Your task to perform on an android device: Is it going to rain today? Image 0: 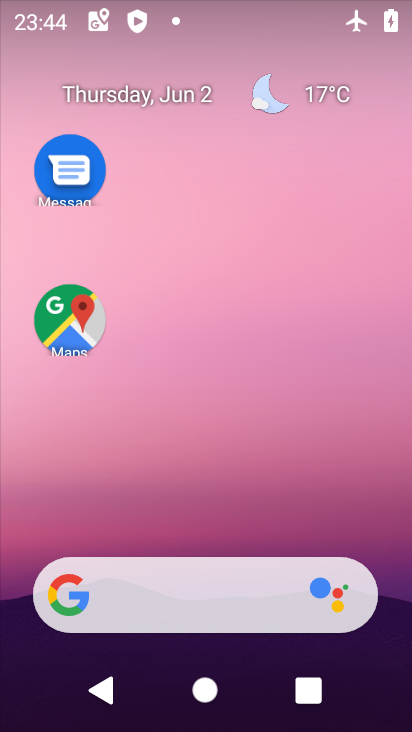
Step 0: press home button
Your task to perform on an android device: Is it going to rain today? Image 1: 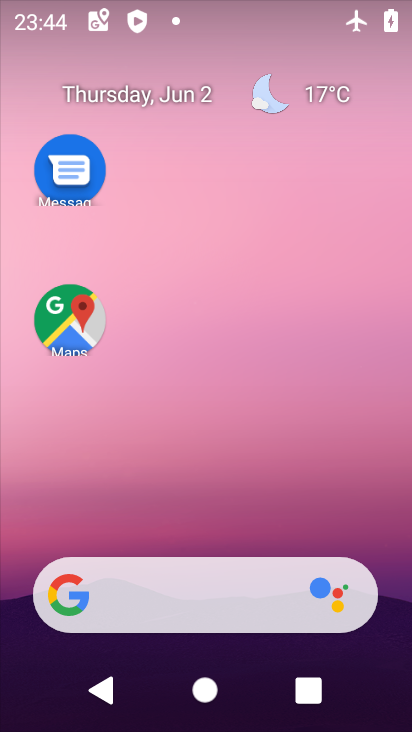
Step 1: drag from (221, 521) to (137, 7)
Your task to perform on an android device: Is it going to rain today? Image 2: 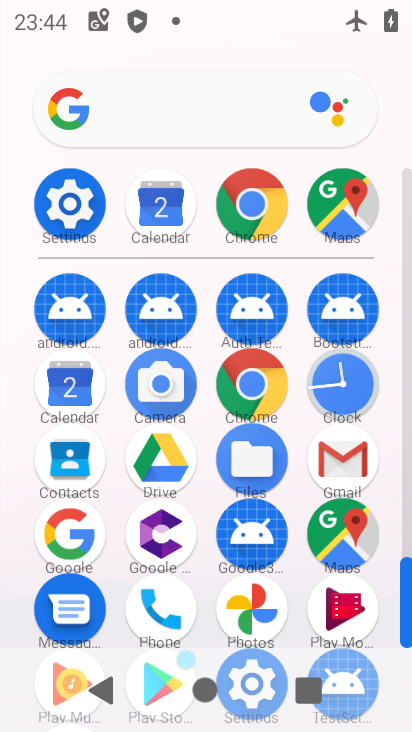
Step 2: drag from (271, 2) to (108, 526)
Your task to perform on an android device: Is it going to rain today? Image 3: 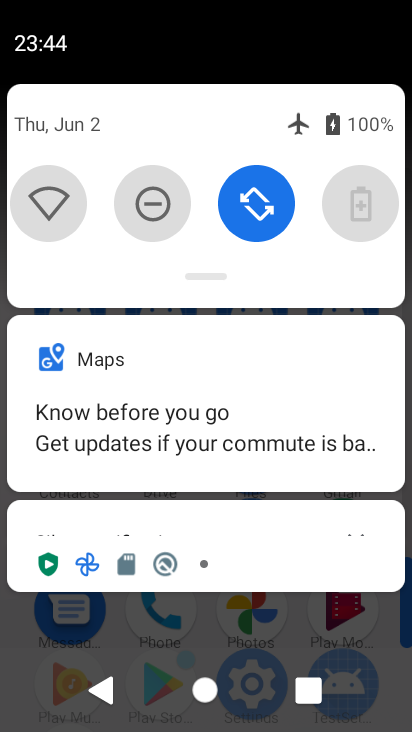
Step 3: click (199, 285)
Your task to perform on an android device: Is it going to rain today? Image 4: 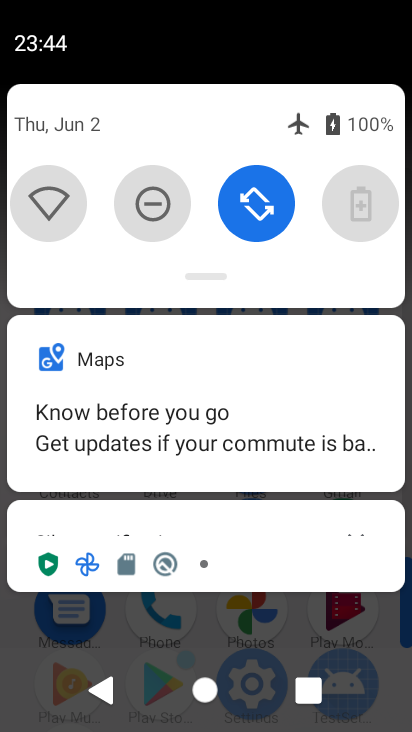
Step 4: drag from (199, 285) to (193, 626)
Your task to perform on an android device: Is it going to rain today? Image 5: 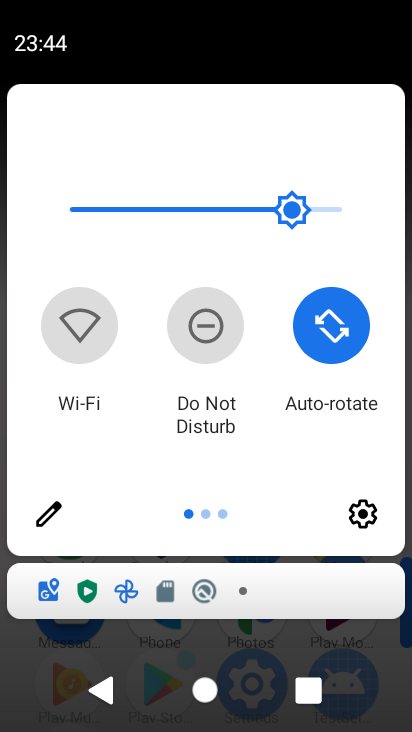
Step 5: drag from (403, 371) to (50, 415)
Your task to perform on an android device: Is it going to rain today? Image 6: 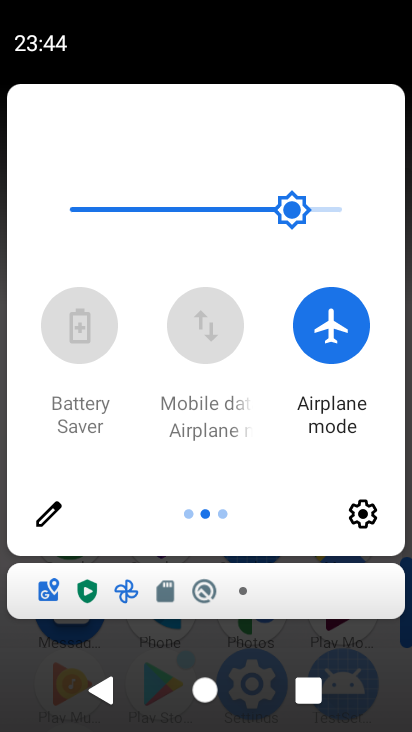
Step 6: click (321, 332)
Your task to perform on an android device: Is it going to rain today? Image 7: 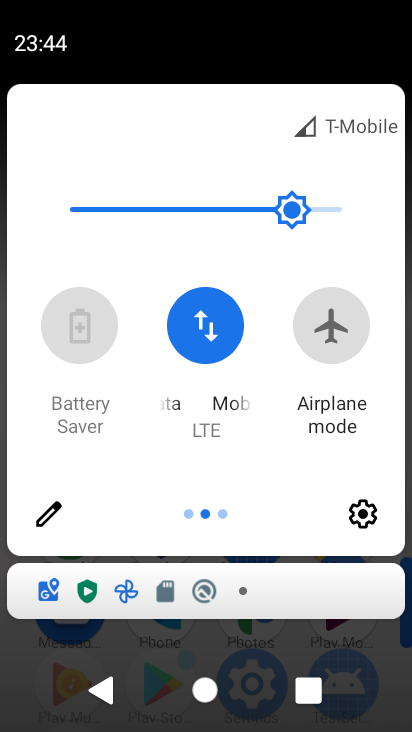
Step 7: drag from (314, 620) to (307, 248)
Your task to perform on an android device: Is it going to rain today? Image 8: 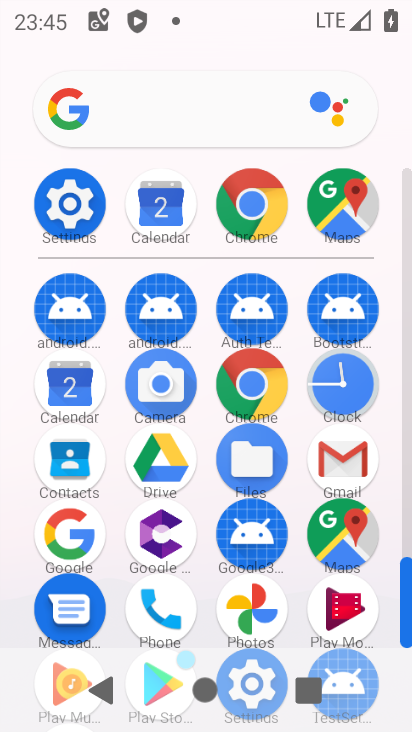
Step 8: click (249, 380)
Your task to perform on an android device: Is it going to rain today? Image 9: 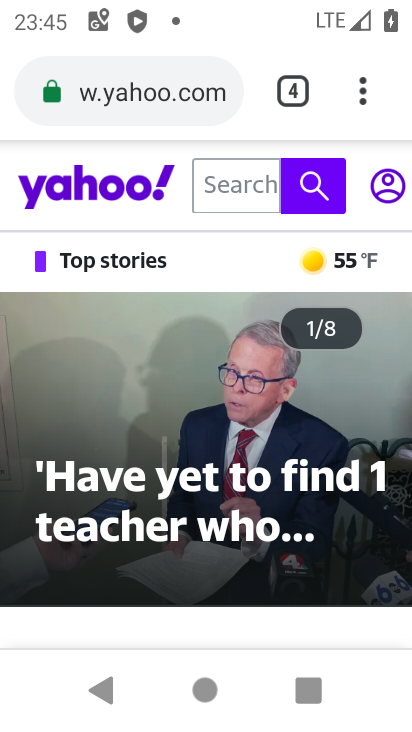
Step 9: click (98, 100)
Your task to perform on an android device: Is it going to rain today? Image 10: 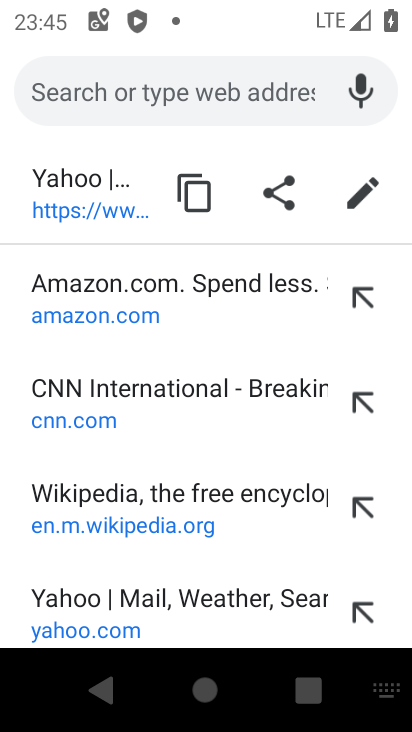
Step 10: type "Is it going to rain today?"
Your task to perform on an android device: Is it going to rain today? Image 11: 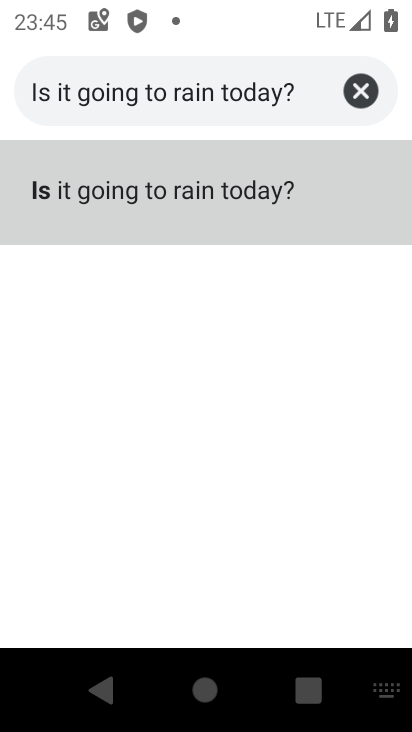
Step 11: click (66, 193)
Your task to perform on an android device: Is it going to rain today? Image 12: 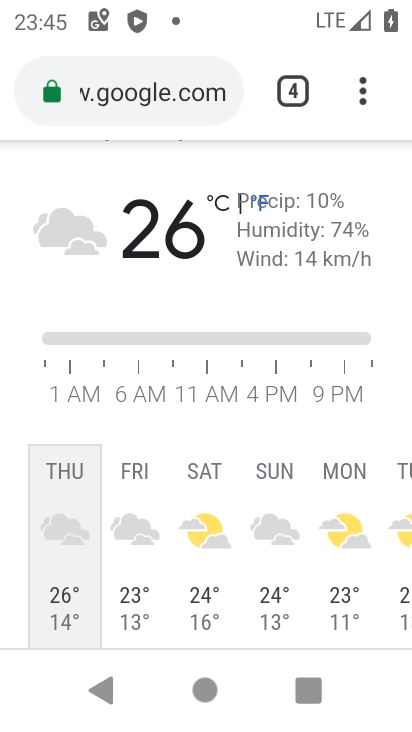
Step 12: task complete